Your task to perform on an android device: Open accessibility settings Image 0: 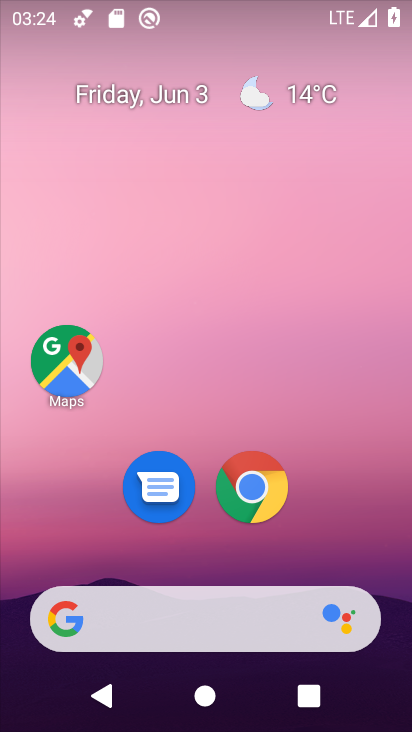
Step 0: drag from (333, 546) to (251, 0)
Your task to perform on an android device: Open accessibility settings Image 1: 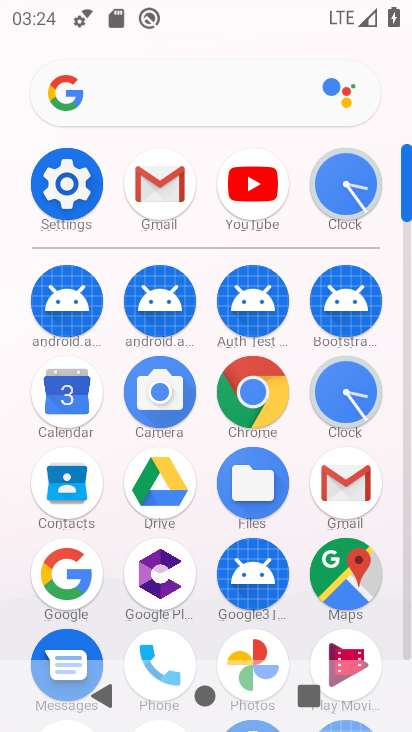
Step 1: click (55, 170)
Your task to perform on an android device: Open accessibility settings Image 2: 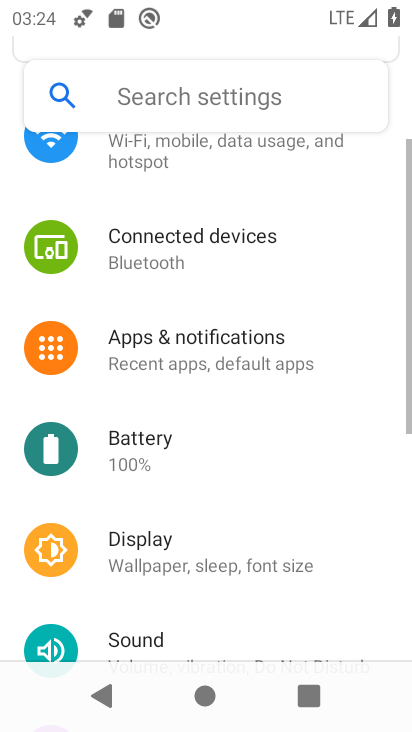
Step 2: drag from (260, 594) to (220, 91)
Your task to perform on an android device: Open accessibility settings Image 3: 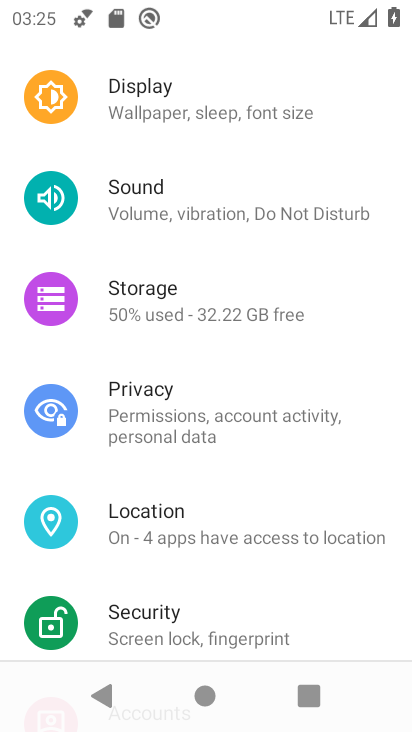
Step 3: drag from (247, 569) to (214, 79)
Your task to perform on an android device: Open accessibility settings Image 4: 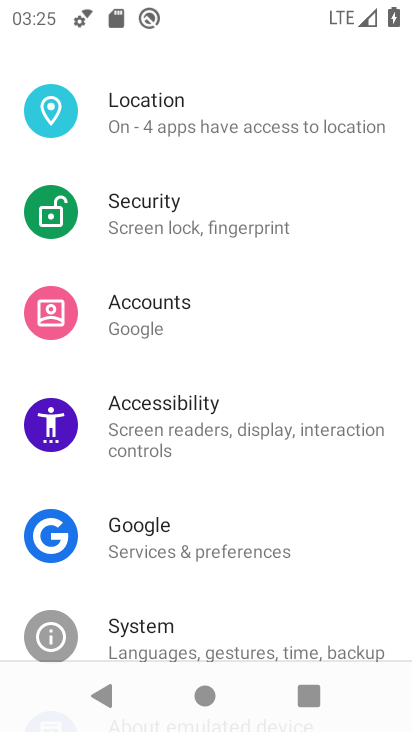
Step 4: click (216, 417)
Your task to perform on an android device: Open accessibility settings Image 5: 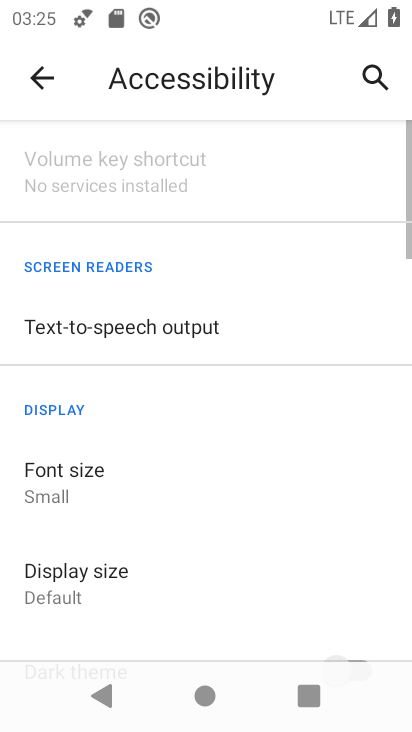
Step 5: task complete